Your task to perform on an android device: manage bookmarks in the chrome app Image 0: 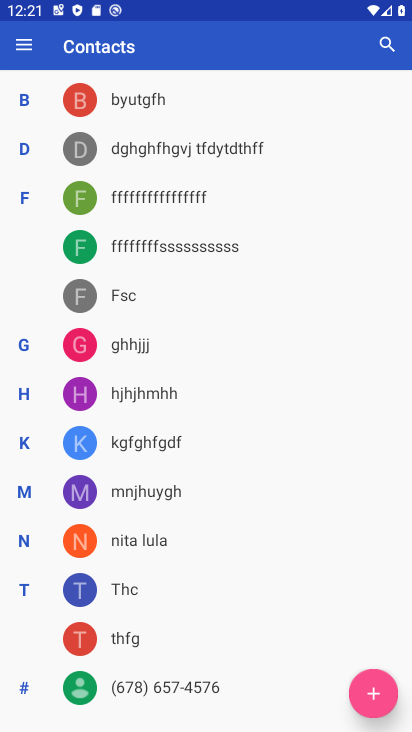
Step 0: press home button
Your task to perform on an android device: manage bookmarks in the chrome app Image 1: 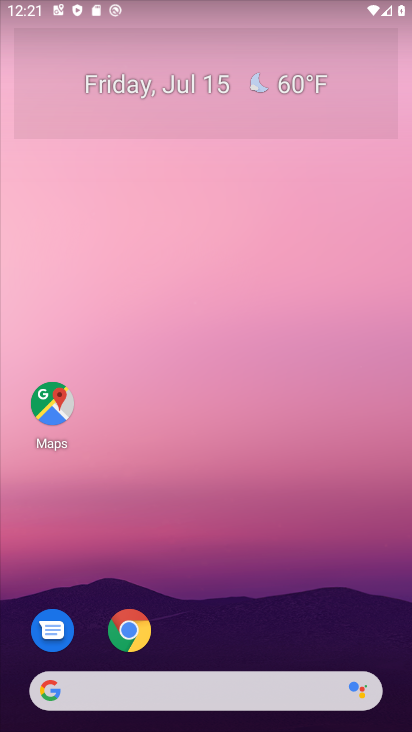
Step 1: click (138, 639)
Your task to perform on an android device: manage bookmarks in the chrome app Image 2: 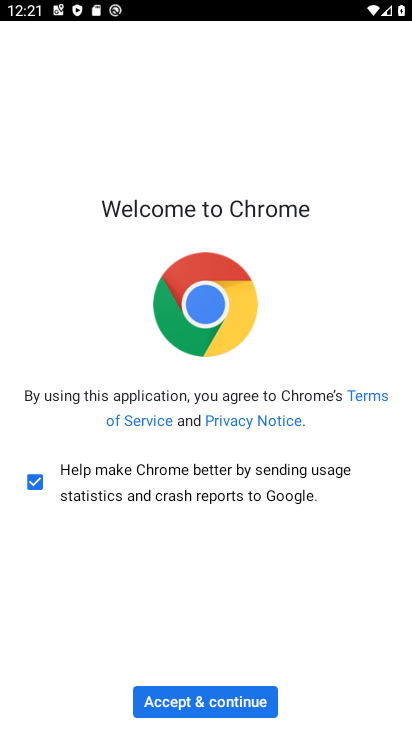
Step 2: click (179, 702)
Your task to perform on an android device: manage bookmarks in the chrome app Image 3: 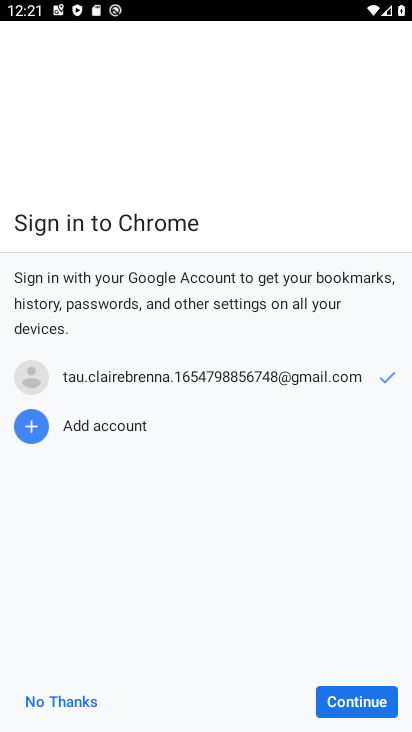
Step 3: click (349, 689)
Your task to perform on an android device: manage bookmarks in the chrome app Image 4: 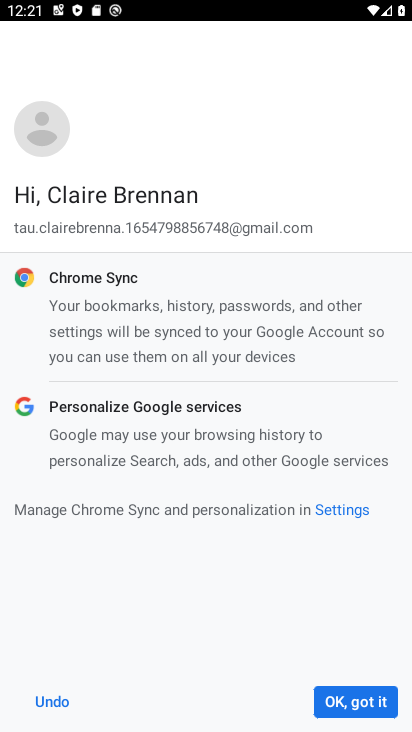
Step 4: click (364, 684)
Your task to perform on an android device: manage bookmarks in the chrome app Image 5: 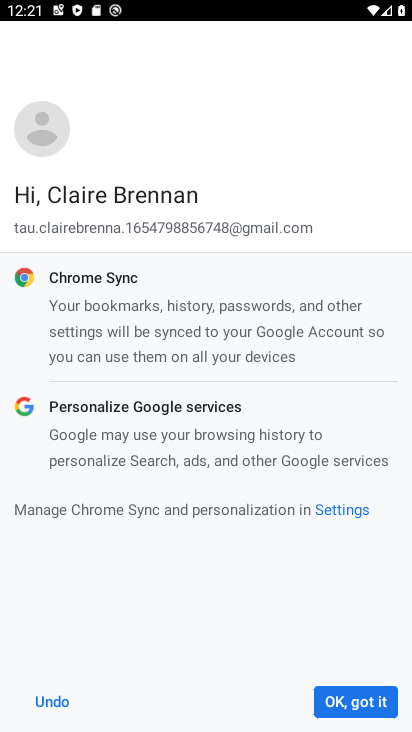
Step 5: click (358, 697)
Your task to perform on an android device: manage bookmarks in the chrome app Image 6: 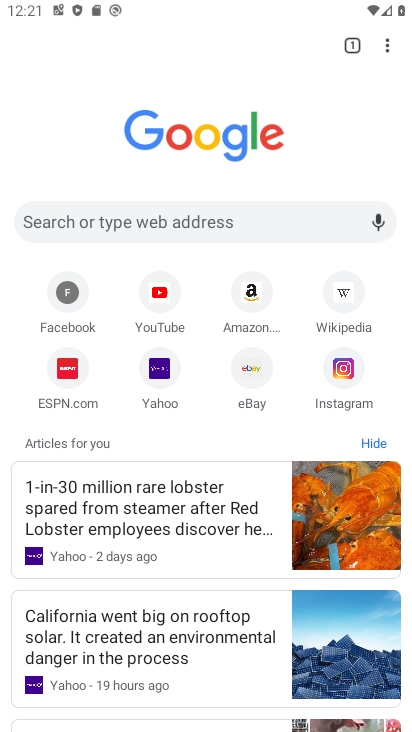
Step 6: click (389, 41)
Your task to perform on an android device: manage bookmarks in the chrome app Image 7: 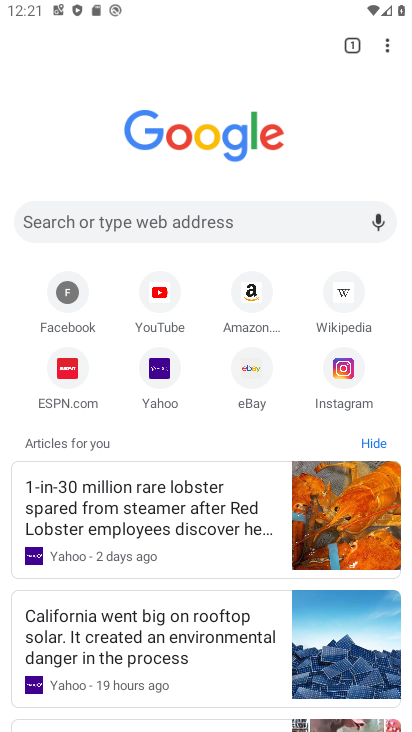
Step 7: click (388, 47)
Your task to perform on an android device: manage bookmarks in the chrome app Image 8: 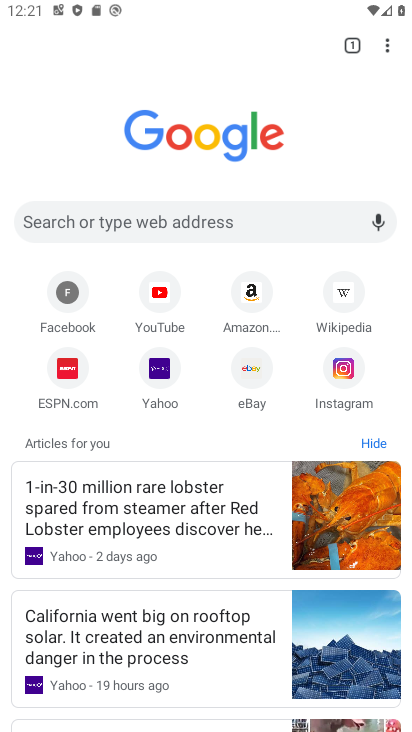
Step 8: click (390, 42)
Your task to perform on an android device: manage bookmarks in the chrome app Image 9: 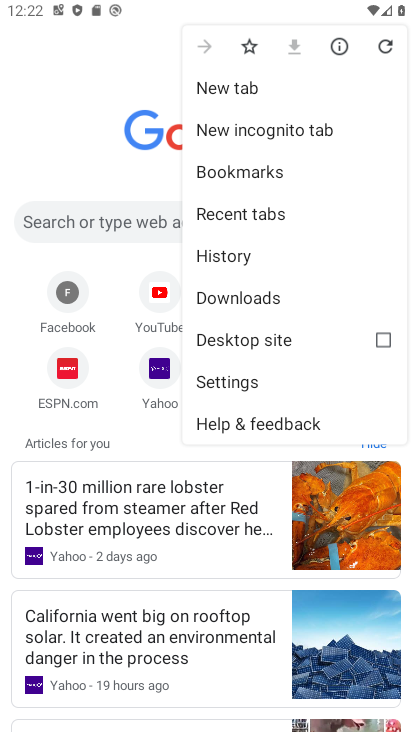
Step 9: click (227, 169)
Your task to perform on an android device: manage bookmarks in the chrome app Image 10: 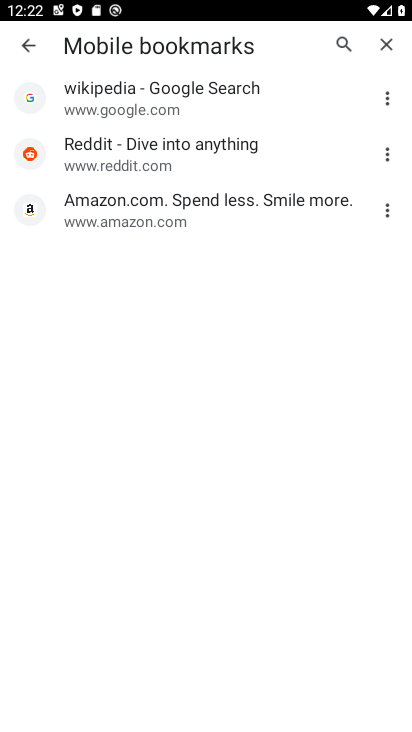
Step 10: task complete